Your task to perform on an android device: Open Wikipedia Image 0: 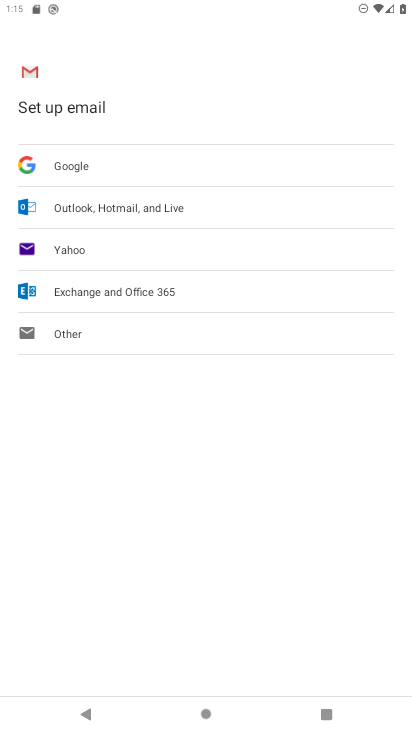
Step 0: press home button
Your task to perform on an android device: Open Wikipedia Image 1: 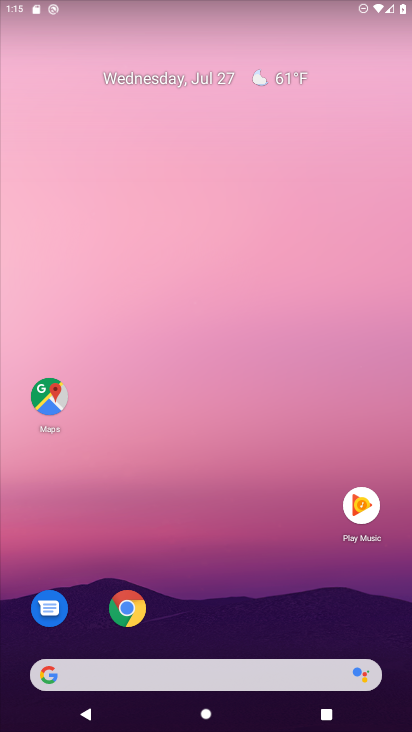
Step 1: drag from (274, 558) to (315, 114)
Your task to perform on an android device: Open Wikipedia Image 2: 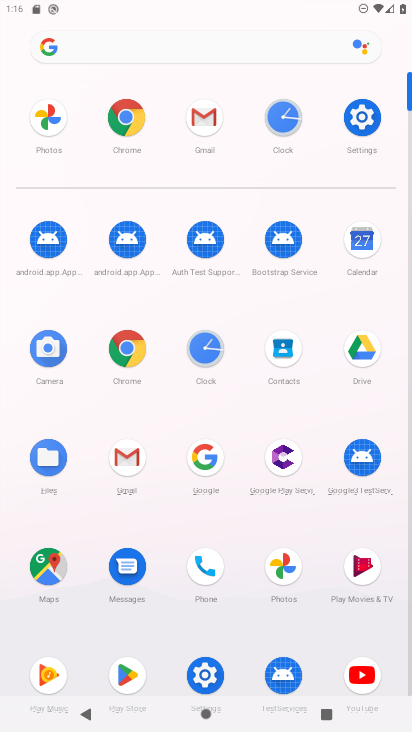
Step 2: click (125, 350)
Your task to perform on an android device: Open Wikipedia Image 3: 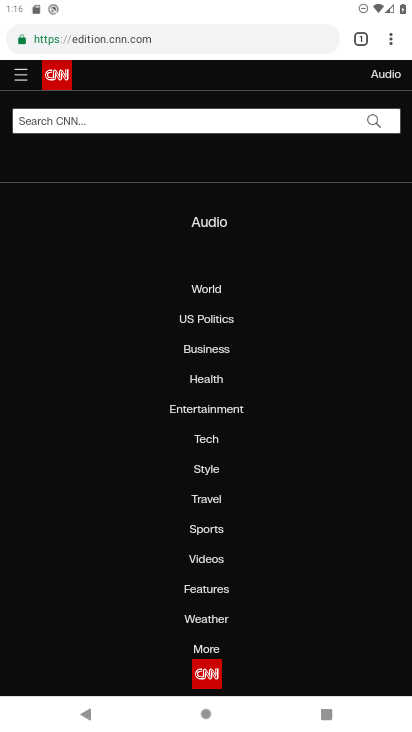
Step 3: click (192, 41)
Your task to perform on an android device: Open Wikipedia Image 4: 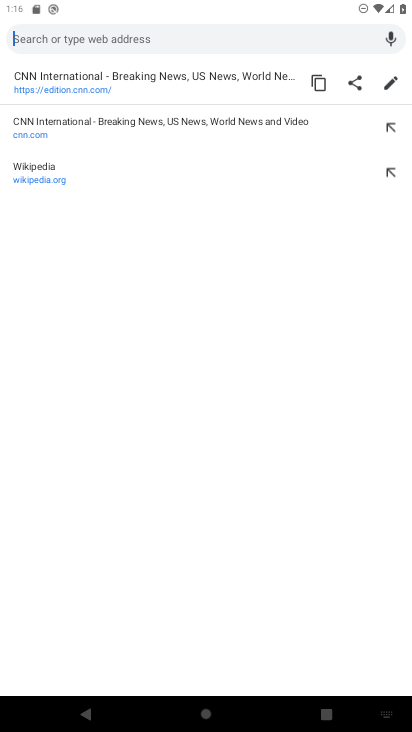
Step 4: type "wikipedia"
Your task to perform on an android device: Open Wikipedia Image 5: 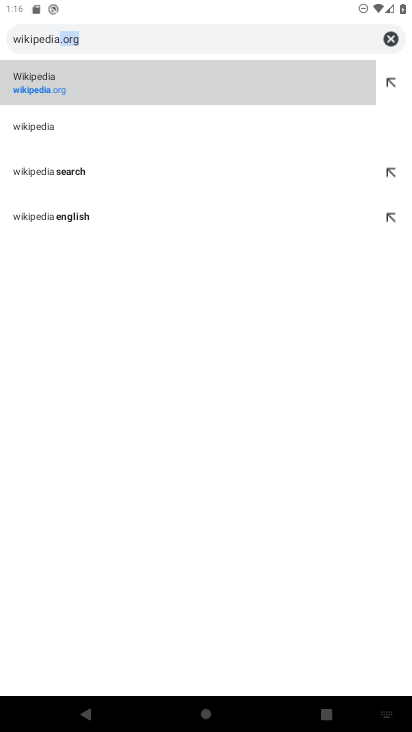
Step 5: click (251, 84)
Your task to perform on an android device: Open Wikipedia Image 6: 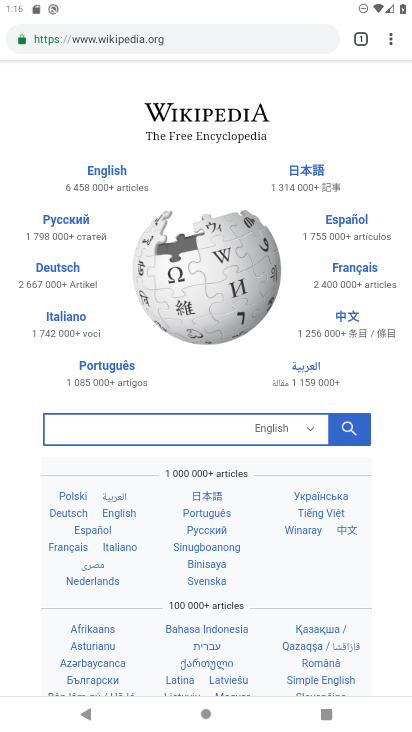
Step 6: task complete